Your task to perform on an android device: Open Wikipedia Image 0: 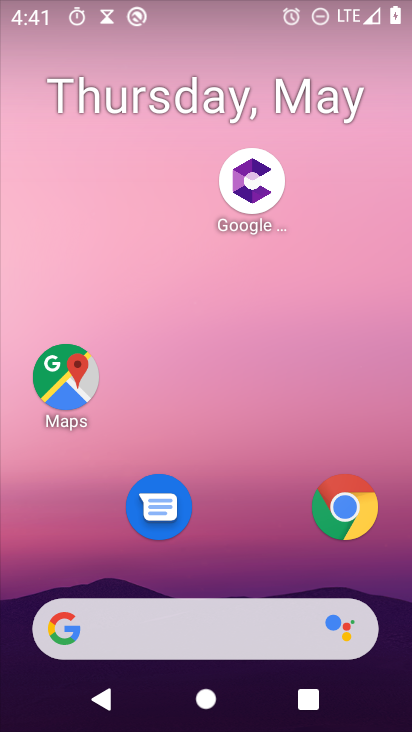
Step 0: click (244, 643)
Your task to perform on an android device: Open Wikipedia Image 1: 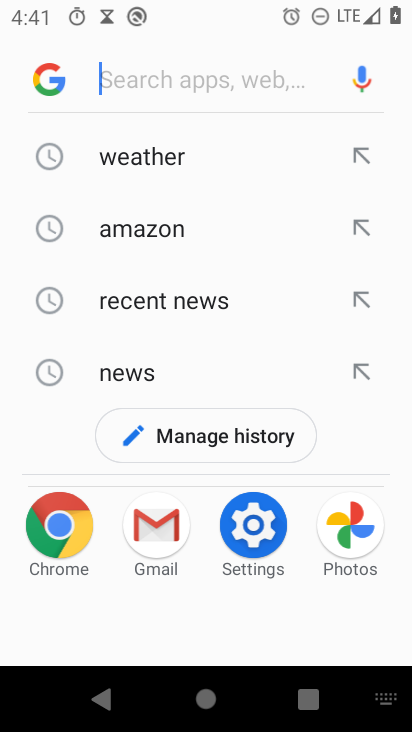
Step 1: type "Wikipedia"
Your task to perform on an android device: Open Wikipedia Image 2: 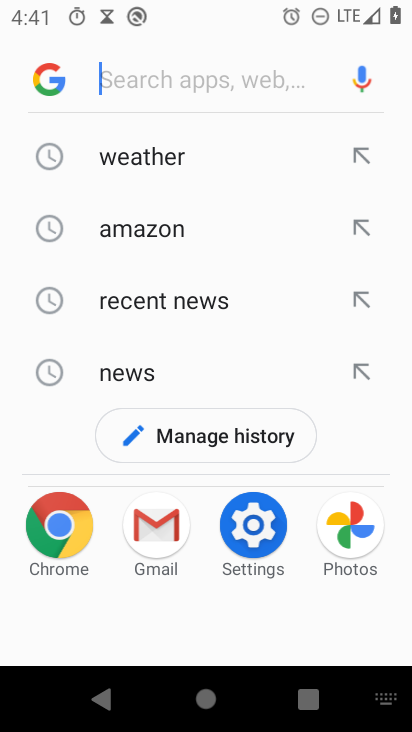
Step 2: click (199, 74)
Your task to perform on an android device: Open Wikipedia Image 3: 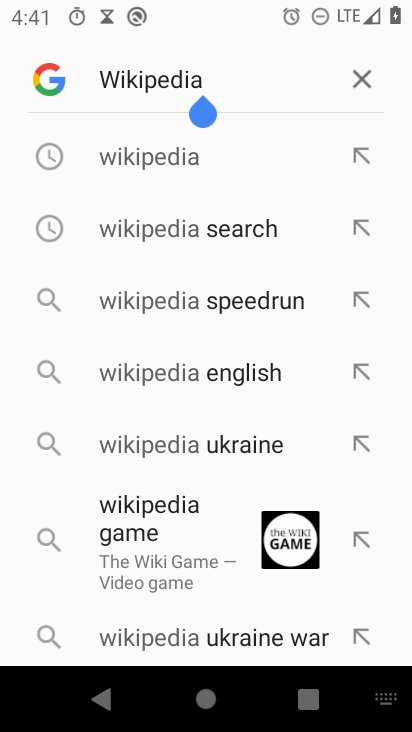
Step 3: click (131, 151)
Your task to perform on an android device: Open Wikipedia Image 4: 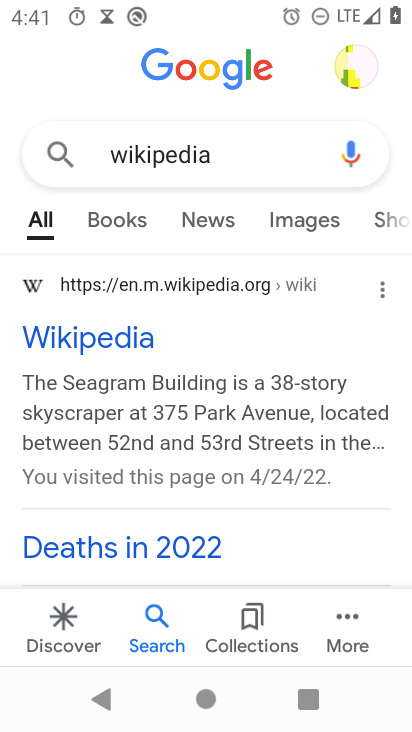
Step 4: click (78, 335)
Your task to perform on an android device: Open Wikipedia Image 5: 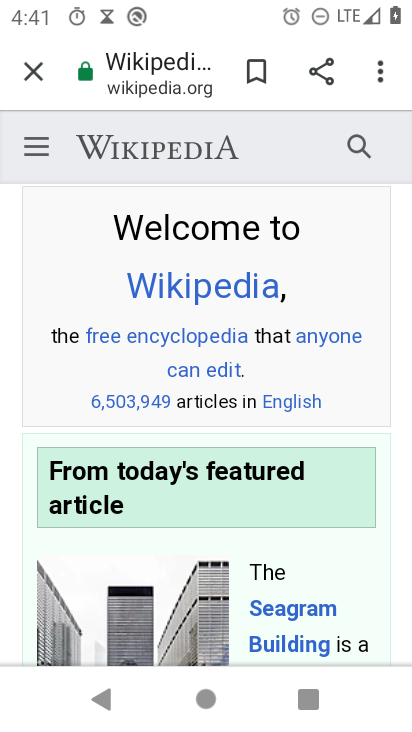
Step 5: task complete